Your task to perform on an android device: turn on showing notifications on the lock screen Image 0: 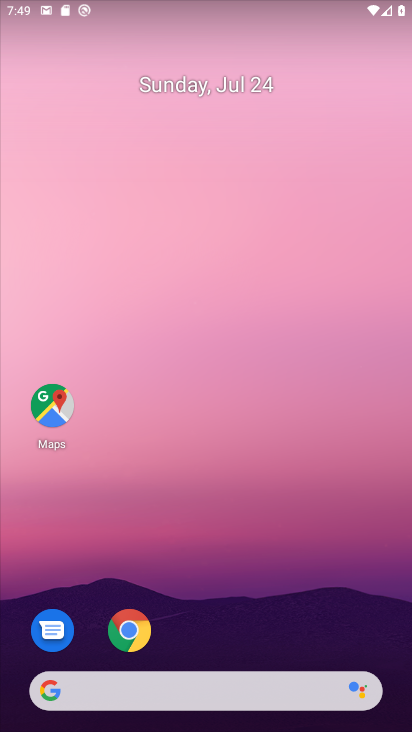
Step 0: drag from (258, 558) to (305, 258)
Your task to perform on an android device: turn on showing notifications on the lock screen Image 1: 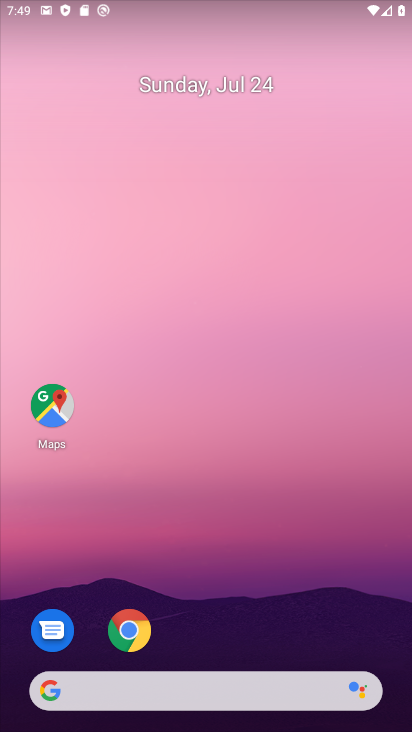
Step 1: drag from (231, 622) to (226, 54)
Your task to perform on an android device: turn on showing notifications on the lock screen Image 2: 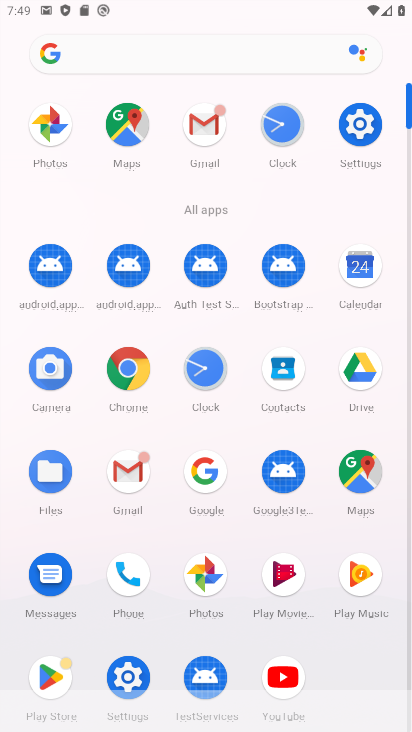
Step 2: click (360, 177)
Your task to perform on an android device: turn on showing notifications on the lock screen Image 3: 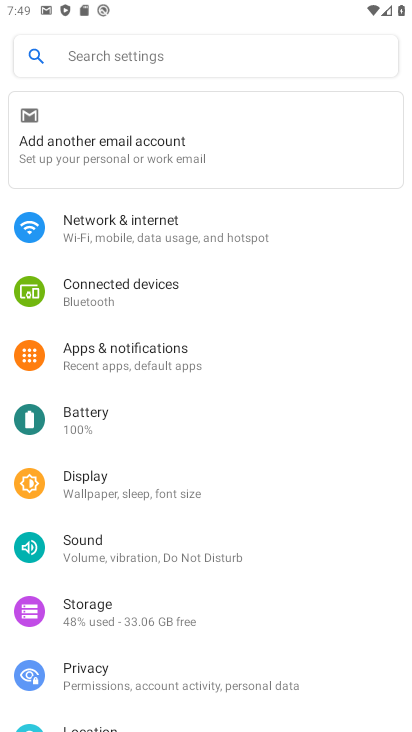
Step 3: click (105, 344)
Your task to perform on an android device: turn on showing notifications on the lock screen Image 4: 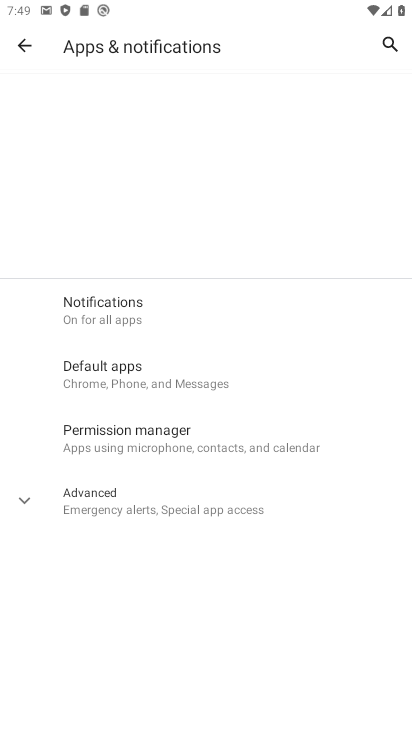
Step 4: task complete